Your task to perform on an android device: Open sound settings Image 0: 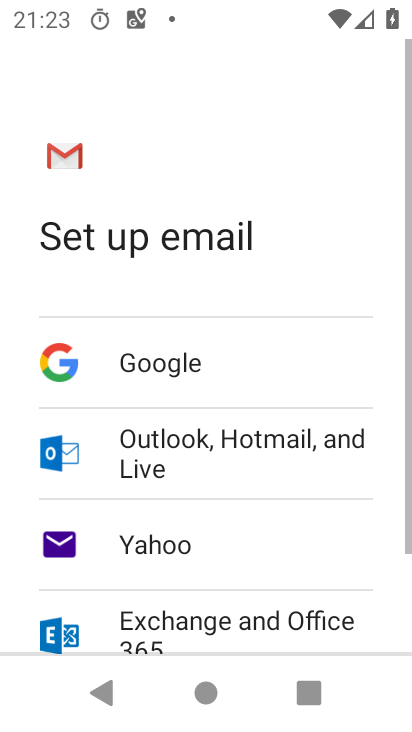
Step 0: press home button
Your task to perform on an android device: Open sound settings Image 1: 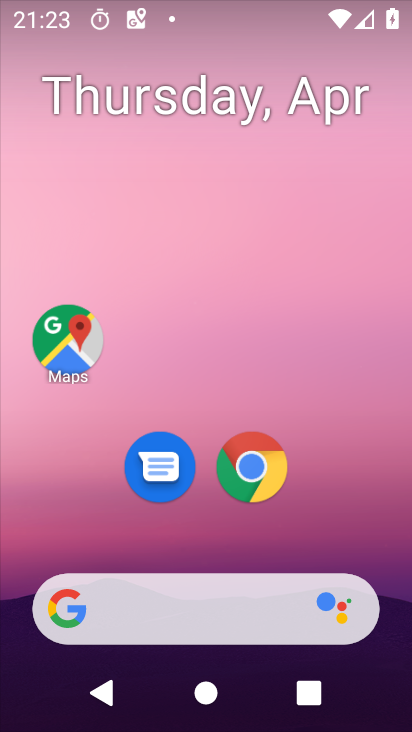
Step 1: drag from (206, 547) to (172, 7)
Your task to perform on an android device: Open sound settings Image 2: 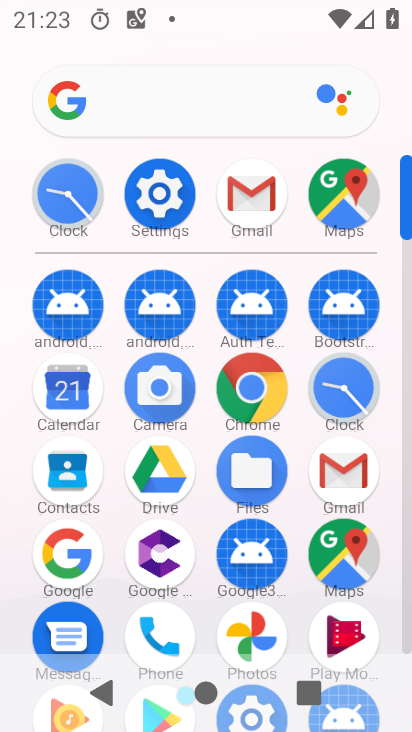
Step 2: click (141, 191)
Your task to perform on an android device: Open sound settings Image 3: 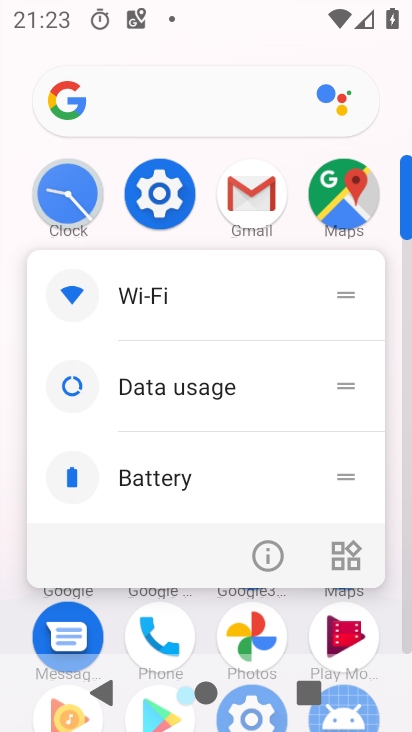
Step 3: click (158, 183)
Your task to perform on an android device: Open sound settings Image 4: 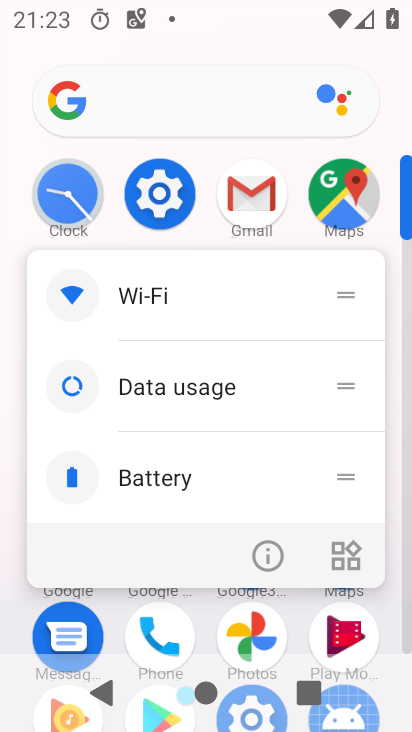
Step 4: click (169, 174)
Your task to perform on an android device: Open sound settings Image 5: 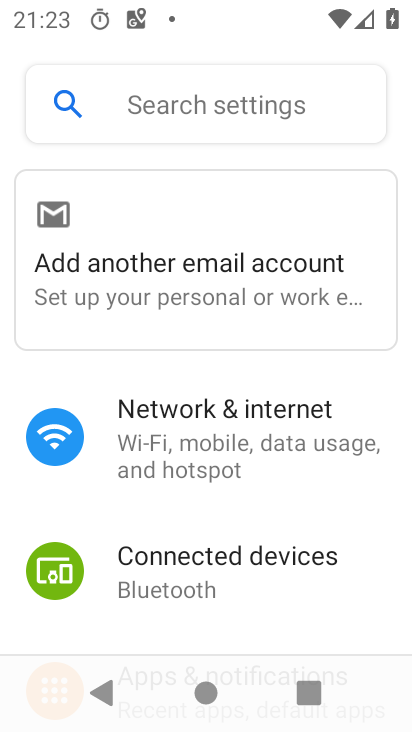
Step 5: drag from (180, 552) to (151, 124)
Your task to perform on an android device: Open sound settings Image 6: 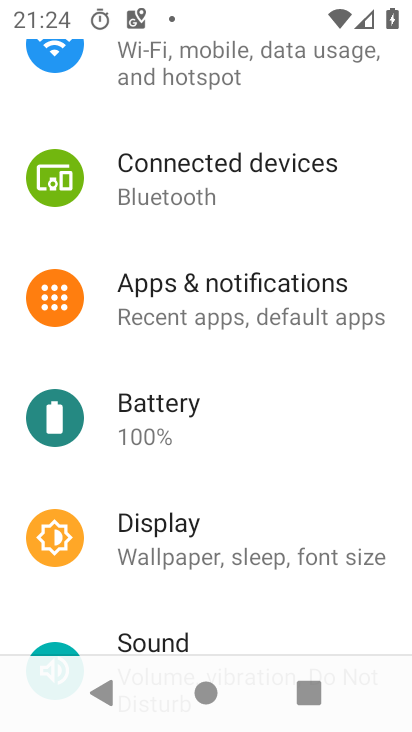
Step 6: click (131, 631)
Your task to perform on an android device: Open sound settings Image 7: 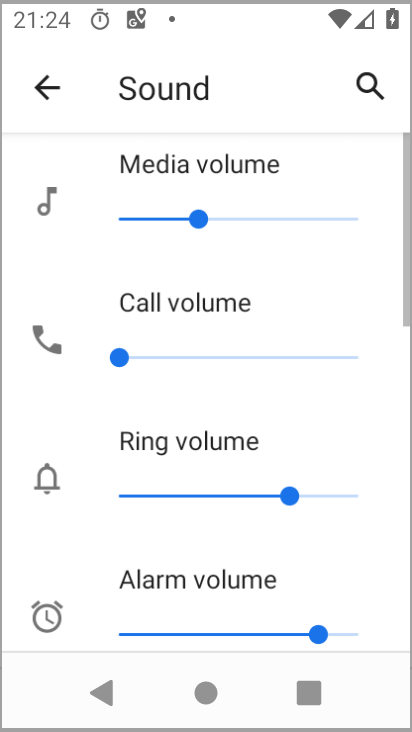
Step 7: task complete